Your task to perform on an android device: What is the news today? Image 0: 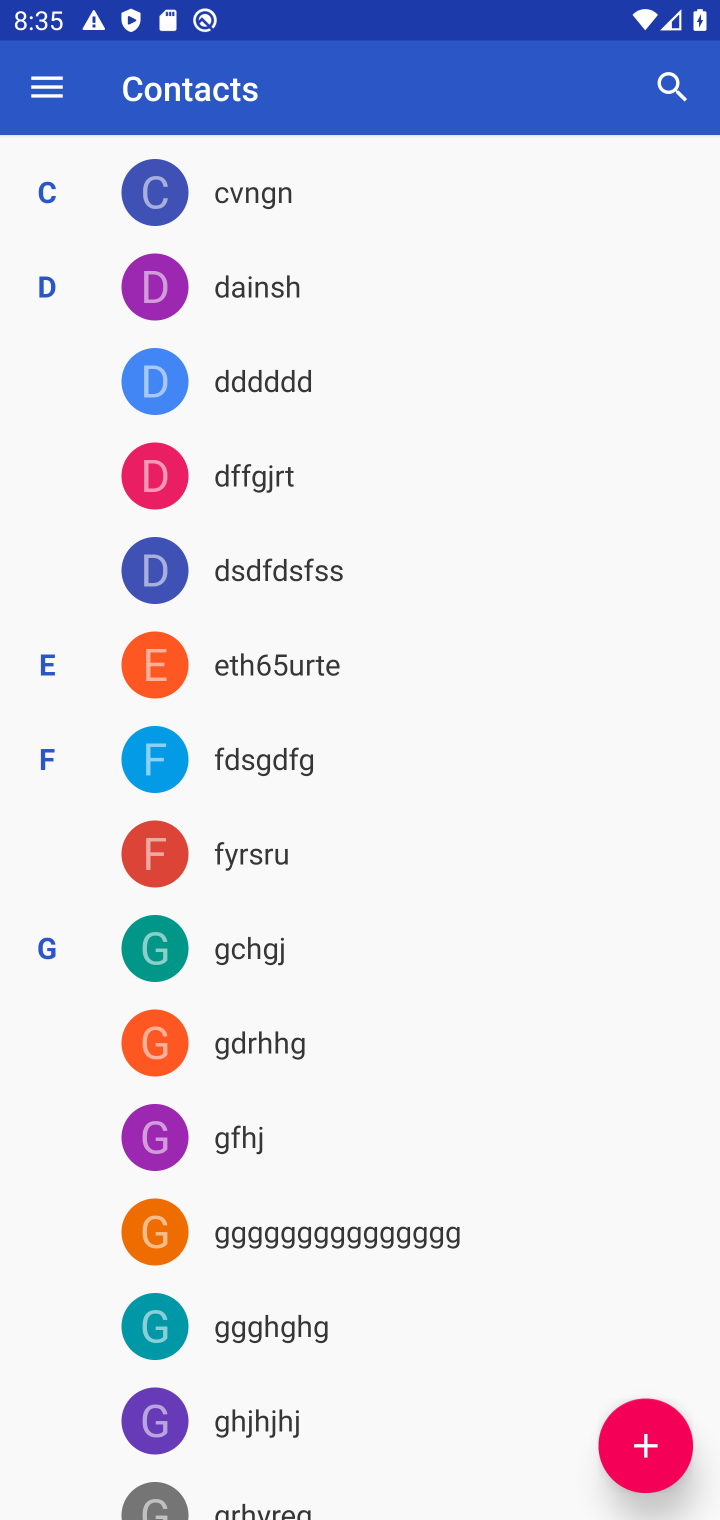
Step 0: press home button
Your task to perform on an android device: What is the news today? Image 1: 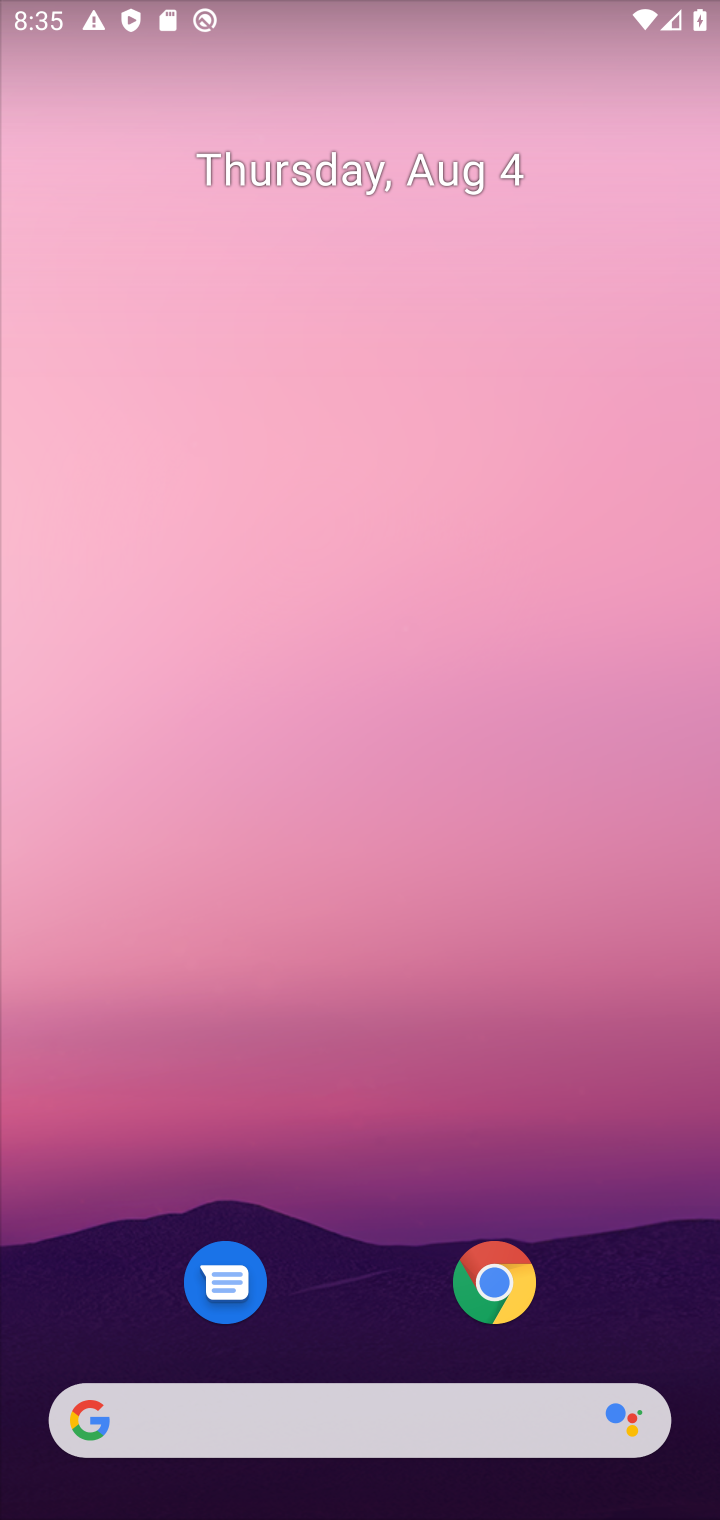
Step 1: click (389, 1423)
Your task to perform on an android device: What is the news today? Image 2: 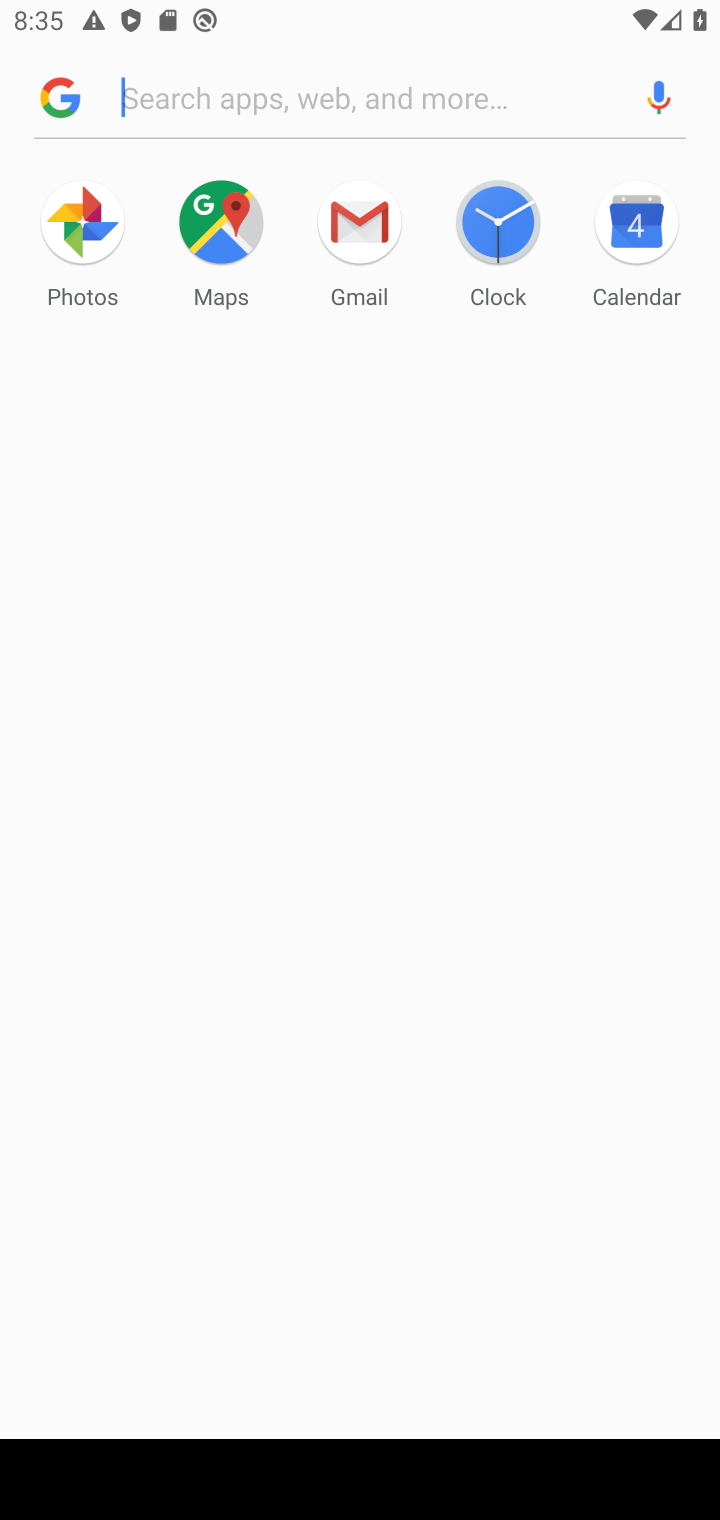
Step 2: type "news today"
Your task to perform on an android device: What is the news today? Image 3: 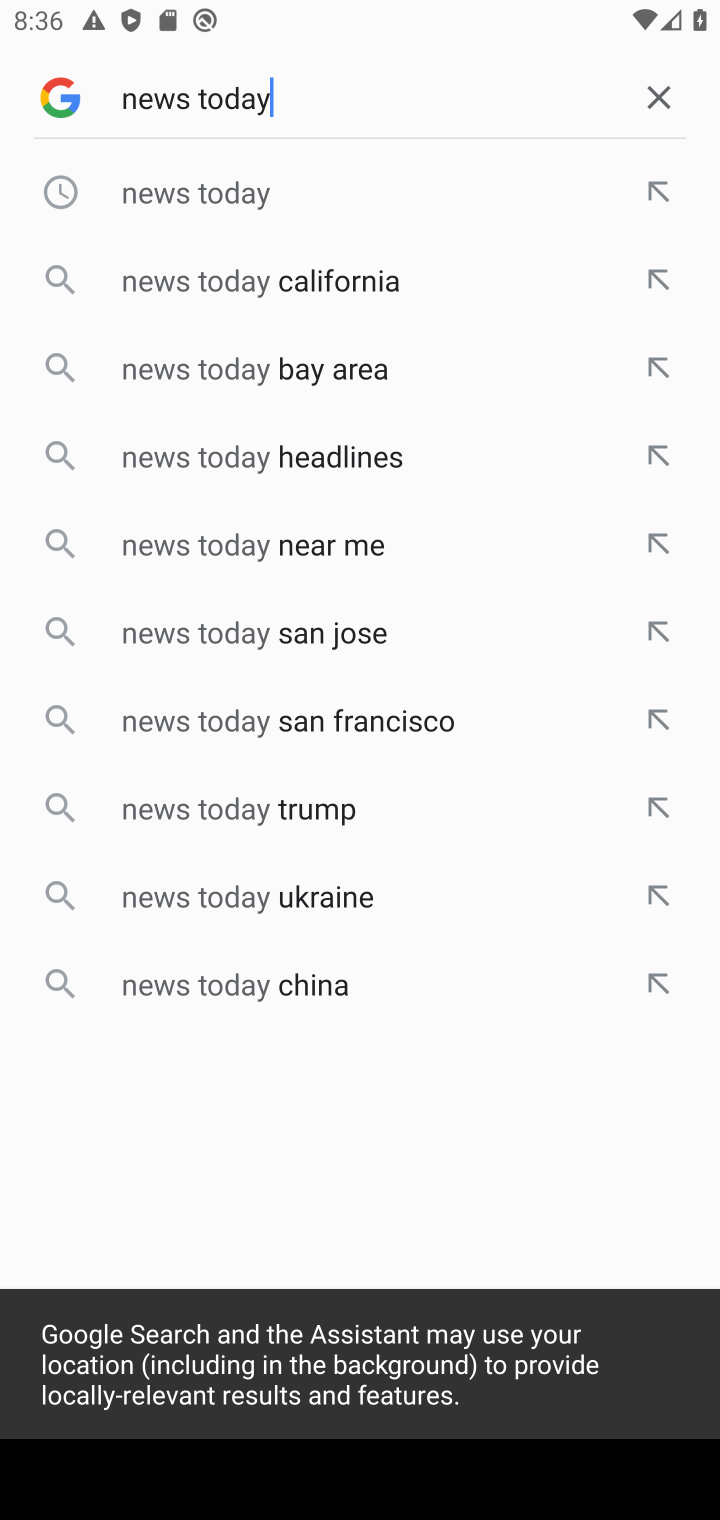
Step 3: click (229, 178)
Your task to perform on an android device: What is the news today? Image 4: 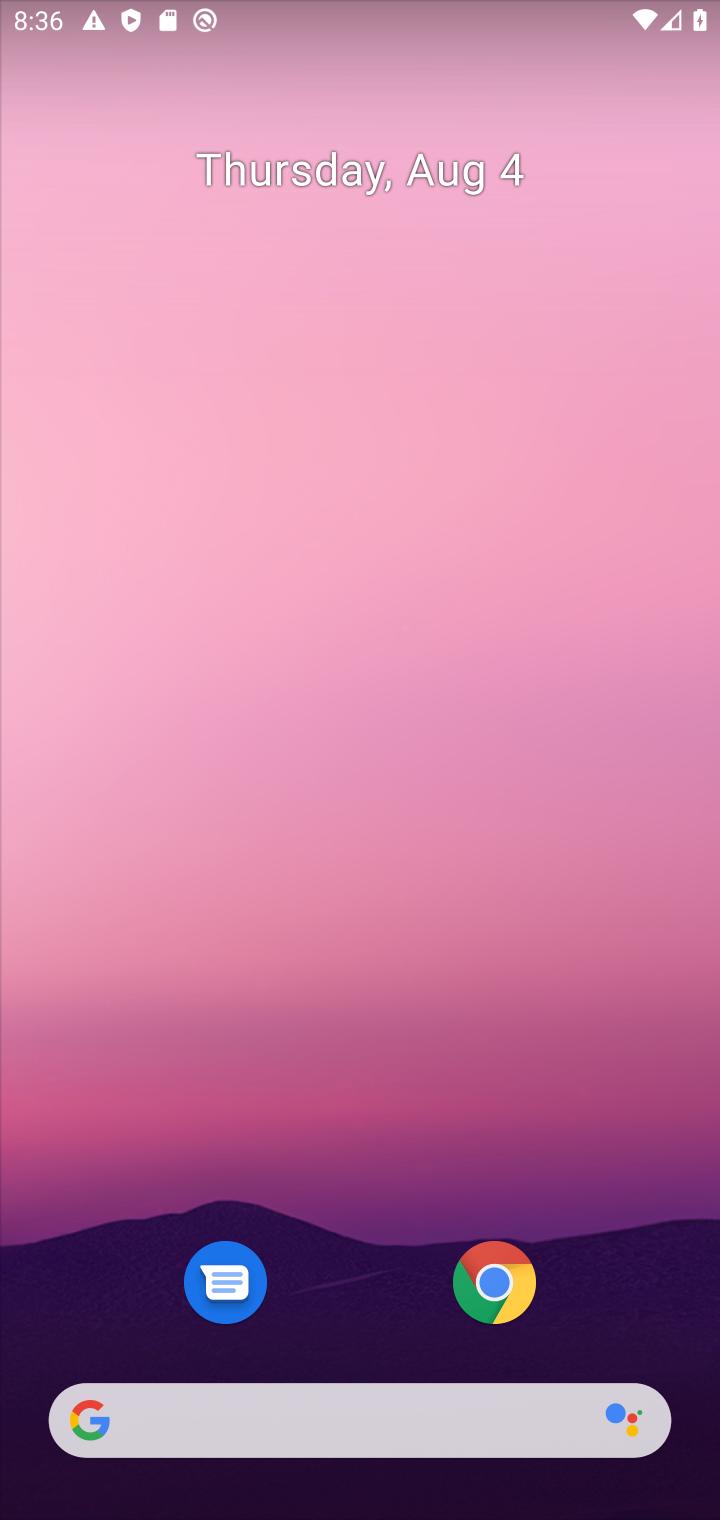
Step 4: task complete